Your task to perform on an android device: Open internet settings Image 0: 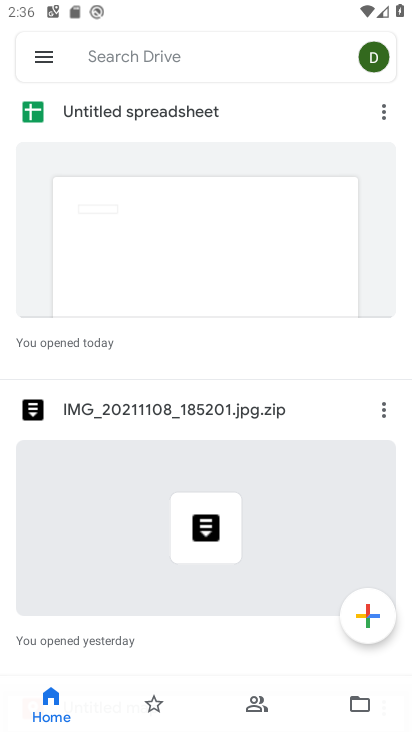
Step 0: press home button
Your task to perform on an android device: Open internet settings Image 1: 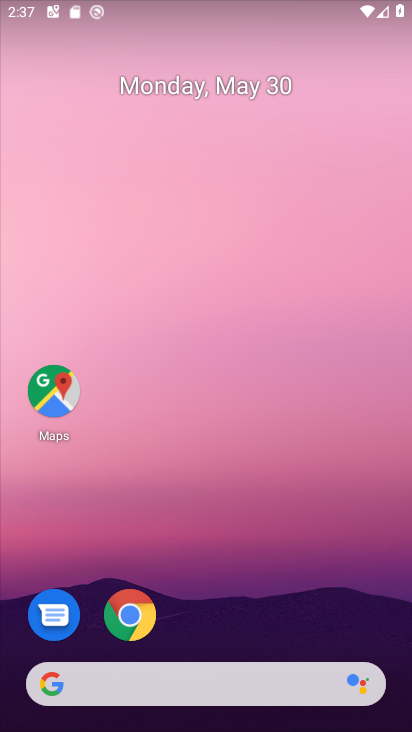
Step 1: drag from (250, 470) to (238, 11)
Your task to perform on an android device: Open internet settings Image 2: 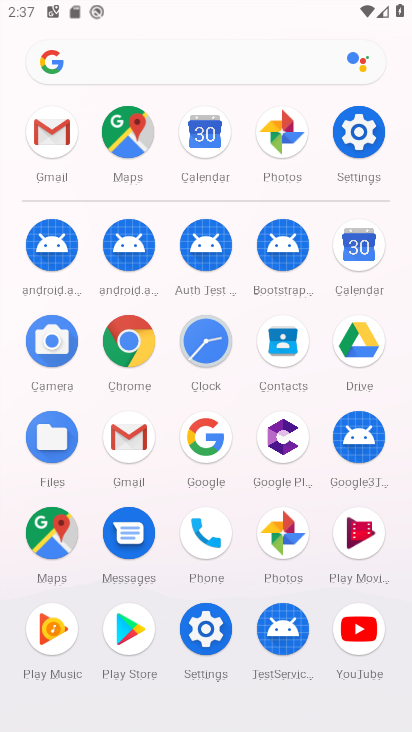
Step 2: click (358, 118)
Your task to perform on an android device: Open internet settings Image 3: 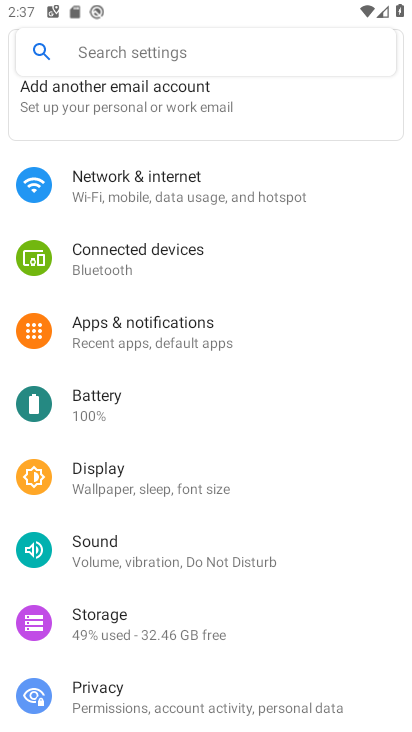
Step 3: click (262, 192)
Your task to perform on an android device: Open internet settings Image 4: 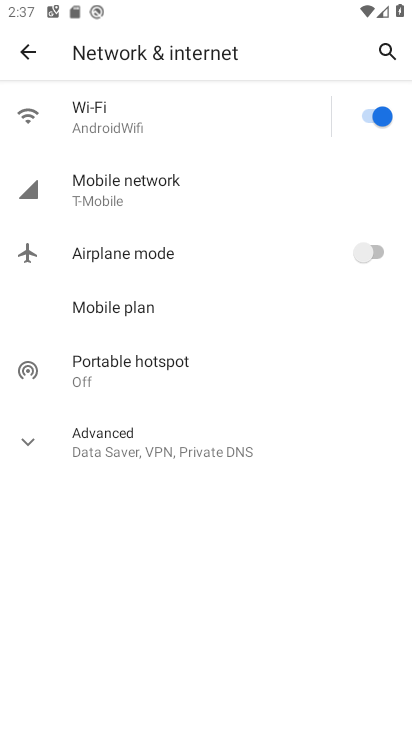
Step 4: task complete